Your task to perform on an android device: turn off airplane mode Image 0: 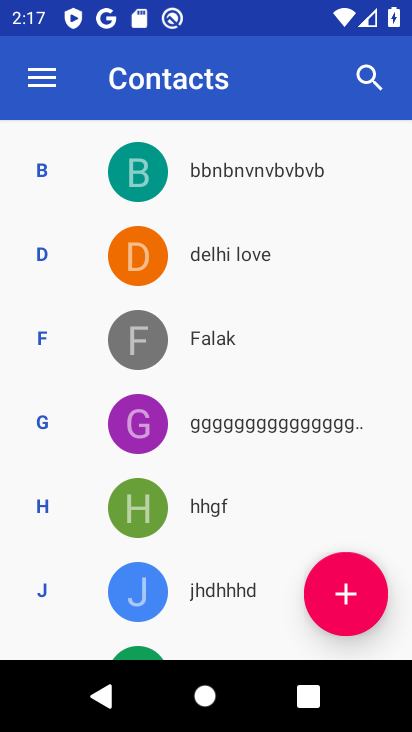
Step 0: press back button
Your task to perform on an android device: turn off airplane mode Image 1: 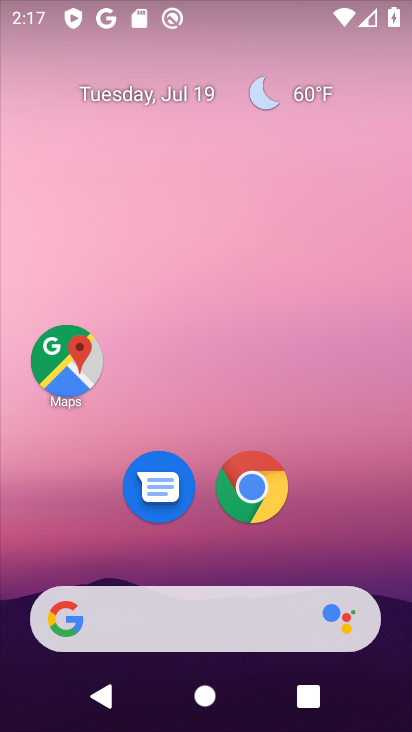
Step 1: task complete